Your task to perform on an android device: open chrome and create a bookmark for the current page Image 0: 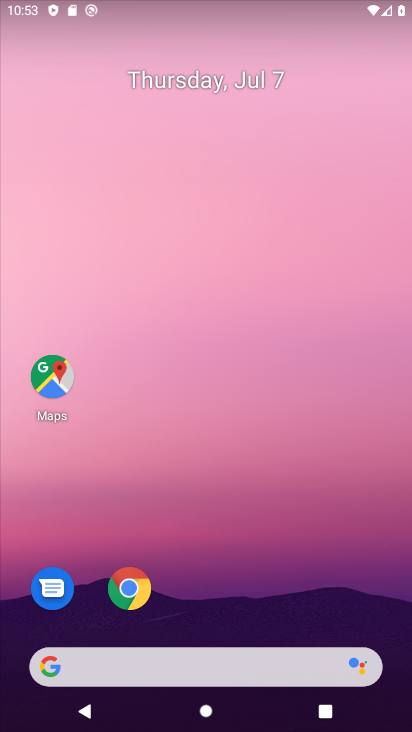
Step 0: click (126, 584)
Your task to perform on an android device: open chrome and create a bookmark for the current page Image 1: 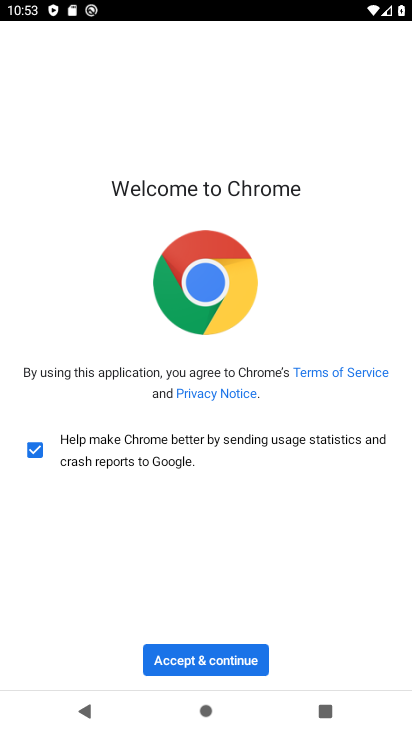
Step 1: click (214, 666)
Your task to perform on an android device: open chrome and create a bookmark for the current page Image 2: 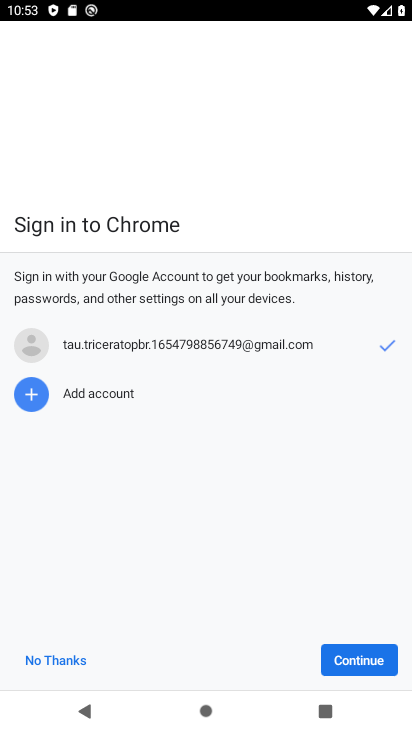
Step 2: click (356, 664)
Your task to perform on an android device: open chrome and create a bookmark for the current page Image 3: 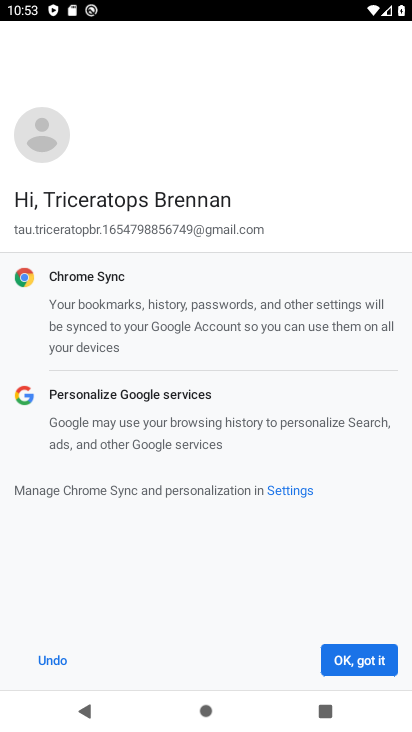
Step 3: click (356, 664)
Your task to perform on an android device: open chrome and create a bookmark for the current page Image 4: 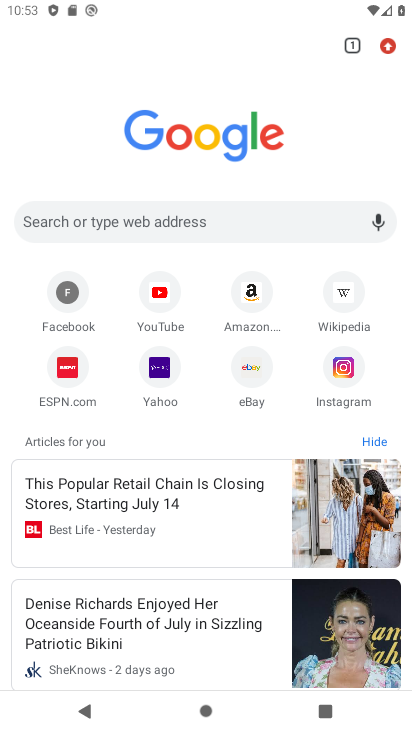
Step 4: click (392, 40)
Your task to perform on an android device: open chrome and create a bookmark for the current page Image 5: 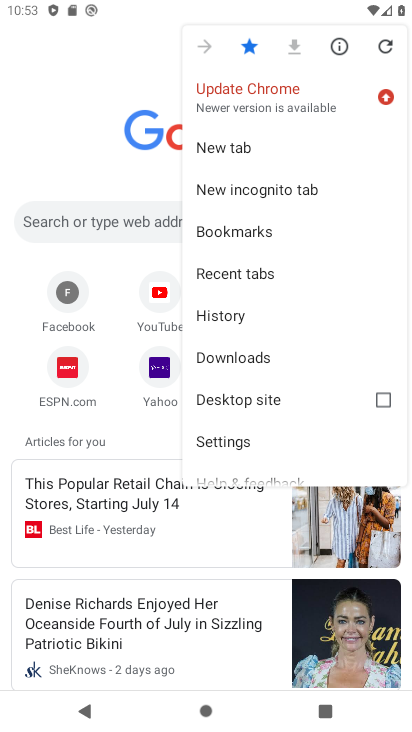
Step 5: task complete